Your task to perform on an android device: turn off smart reply in the gmail app Image 0: 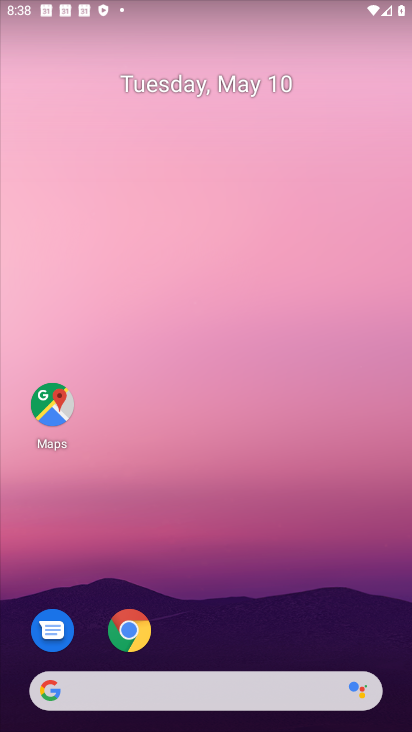
Step 0: drag from (279, 729) to (191, 63)
Your task to perform on an android device: turn off smart reply in the gmail app Image 1: 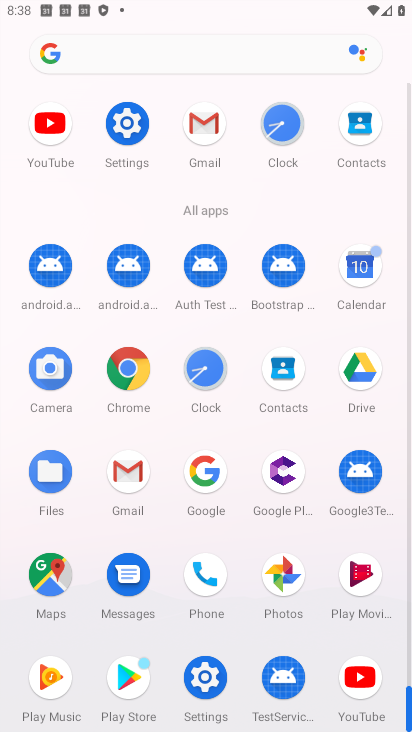
Step 1: click (210, 125)
Your task to perform on an android device: turn off smart reply in the gmail app Image 2: 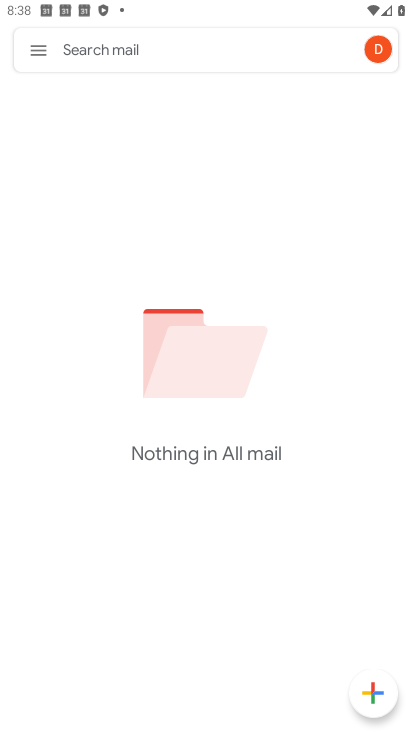
Step 2: click (34, 53)
Your task to perform on an android device: turn off smart reply in the gmail app Image 3: 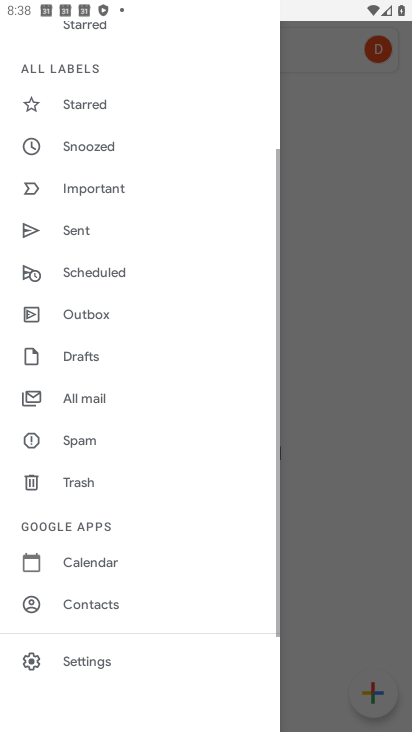
Step 3: click (118, 665)
Your task to perform on an android device: turn off smart reply in the gmail app Image 4: 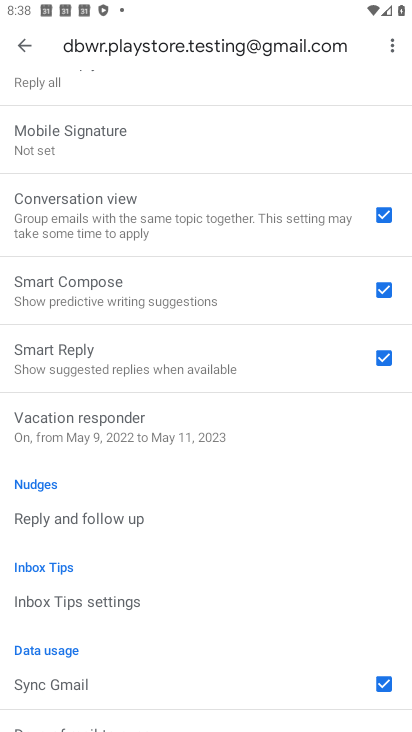
Step 4: click (383, 360)
Your task to perform on an android device: turn off smart reply in the gmail app Image 5: 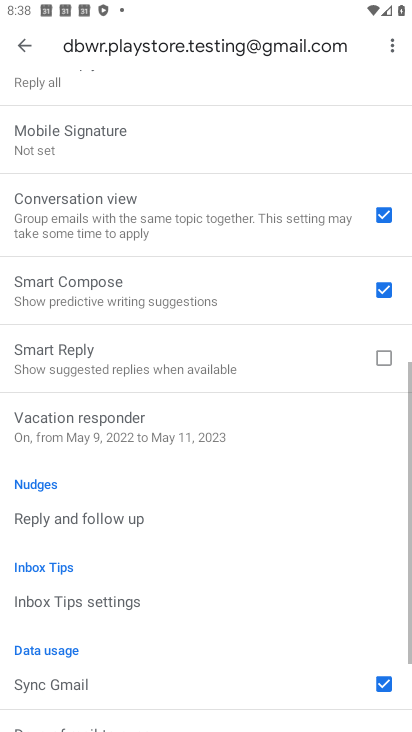
Step 5: task complete